Your task to perform on an android device: Open Youtube and go to "Your channel" Image 0: 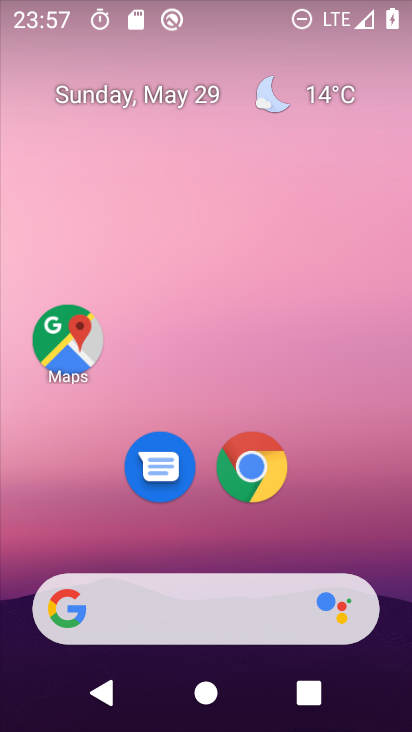
Step 0: drag from (196, 544) to (152, 119)
Your task to perform on an android device: Open Youtube and go to "Your channel" Image 1: 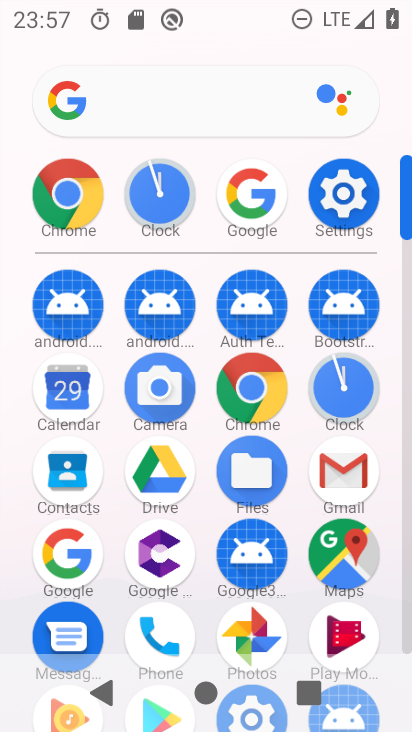
Step 1: drag from (222, 527) to (218, 232)
Your task to perform on an android device: Open Youtube and go to "Your channel" Image 2: 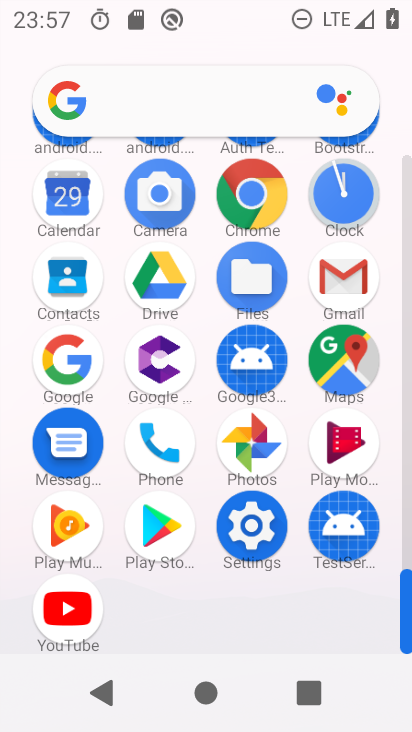
Step 2: click (75, 604)
Your task to perform on an android device: Open Youtube and go to "Your channel" Image 3: 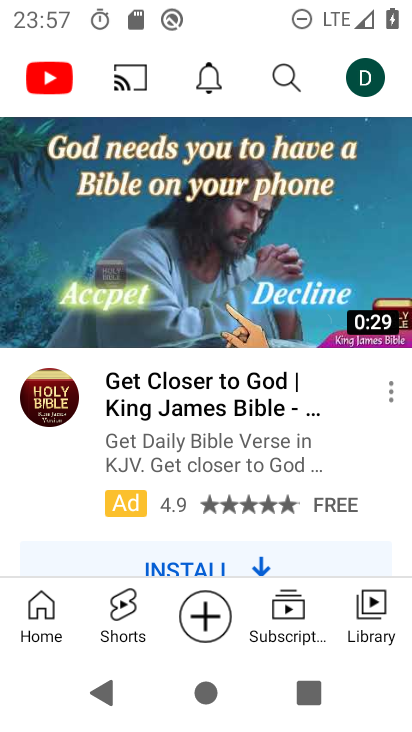
Step 3: click (360, 79)
Your task to perform on an android device: Open Youtube and go to "Your channel" Image 4: 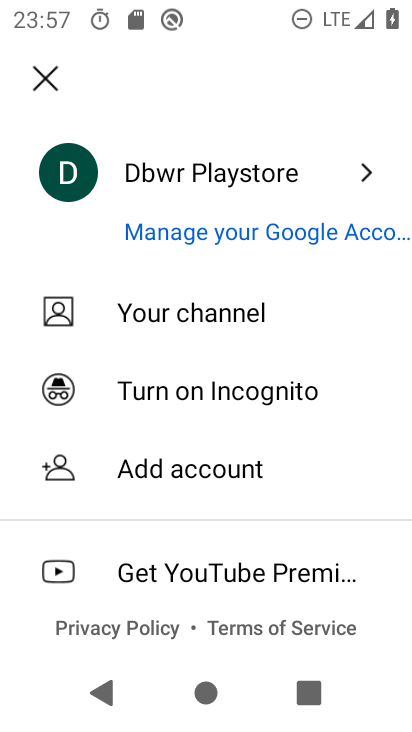
Step 4: click (125, 310)
Your task to perform on an android device: Open Youtube and go to "Your channel" Image 5: 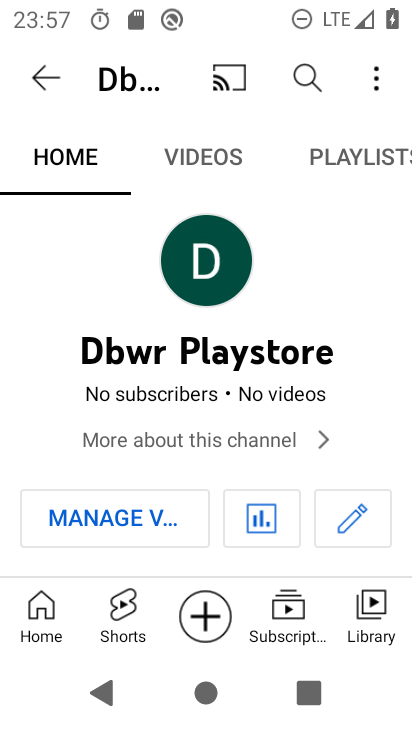
Step 5: drag from (130, 418) to (178, 192)
Your task to perform on an android device: Open Youtube and go to "Your channel" Image 6: 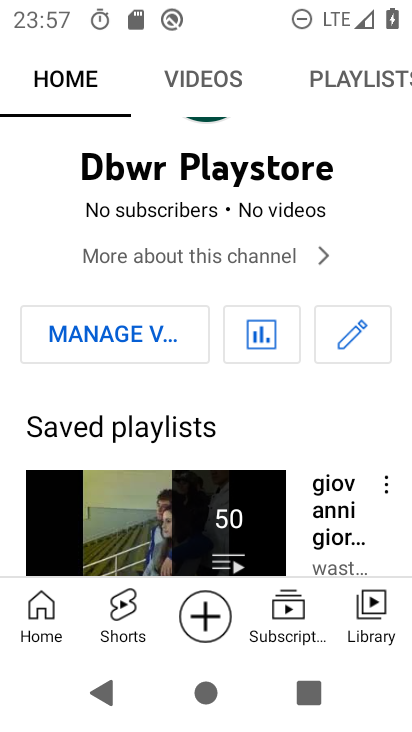
Step 6: drag from (182, 493) to (217, 283)
Your task to perform on an android device: Open Youtube and go to "Your channel" Image 7: 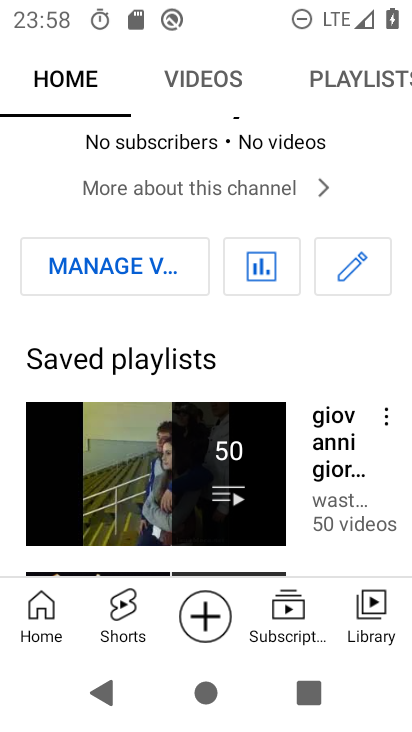
Step 7: drag from (247, 469) to (254, 267)
Your task to perform on an android device: Open Youtube and go to "Your channel" Image 8: 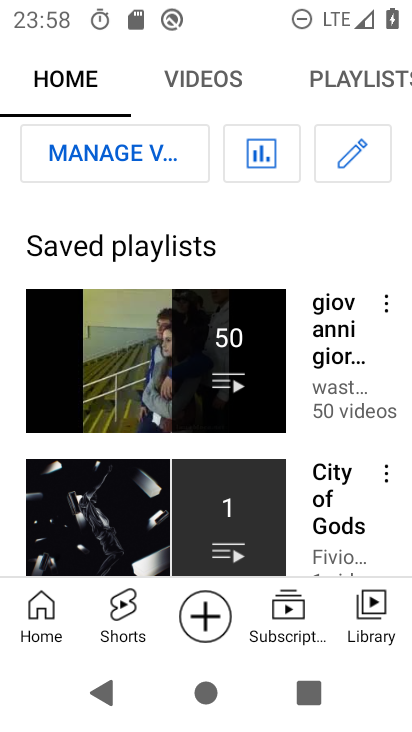
Step 8: drag from (274, 572) to (276, 265)
Your task to perform on an android device: Open Youtube and go to "Your channel" Image 9: 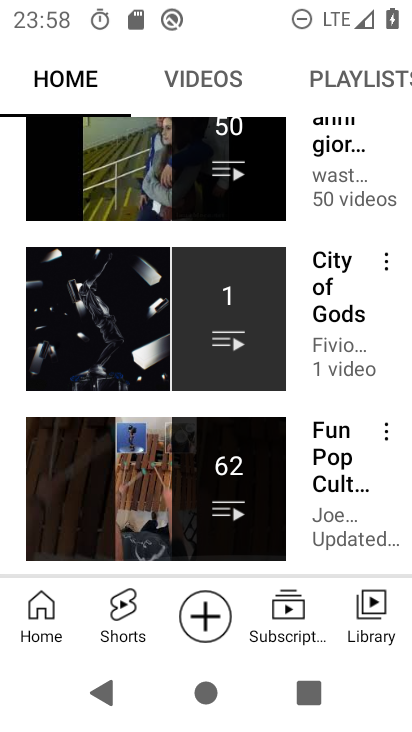
Step 9: drag from (275, 179) to (269, 527)
Your task to perform on an android device: Open Youtube and go to "Your channel" Image 10: 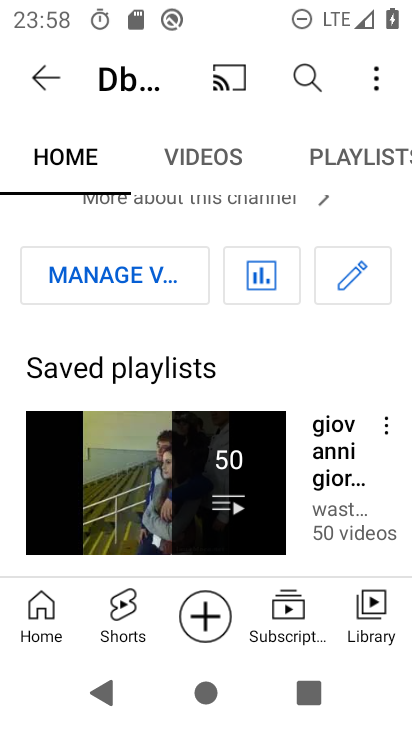
Step 10: drag from (252, 237) to (252, 499)
Your task to perform on an android device: Open Youtube and go to "Your channel" Image 11: 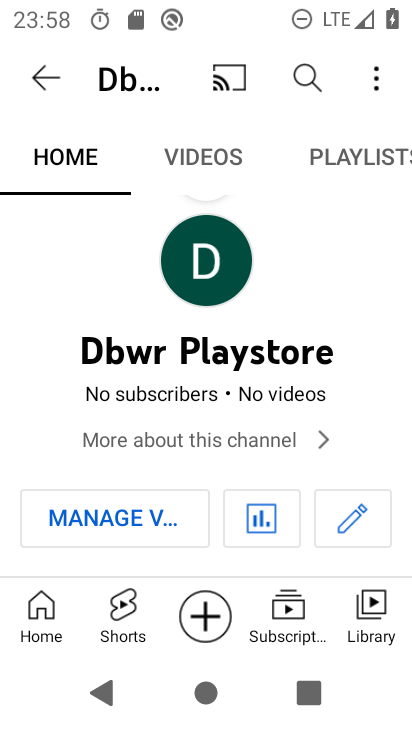
Step 11: drag from (251, 211) to (255, 393)
Your task to perform on an android device: Open Youtube and go to "Your channel" Image 12: 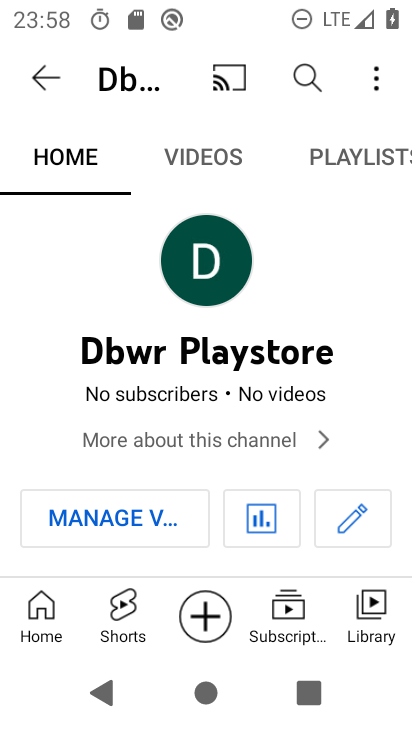
Step 12: click (35, 73)
Your task to perform on an android device: Open Youtube and go to "Your channel" Image 13: 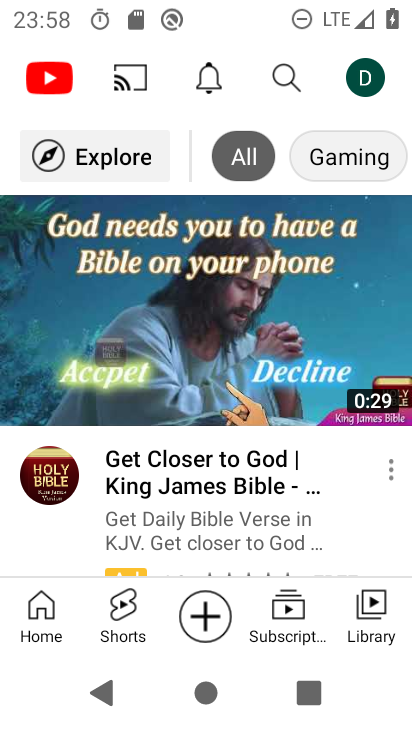
Step 13: click (358, 67)
Your task to perform on an android device: Open Youtube and go to "Your channel" Image 14: 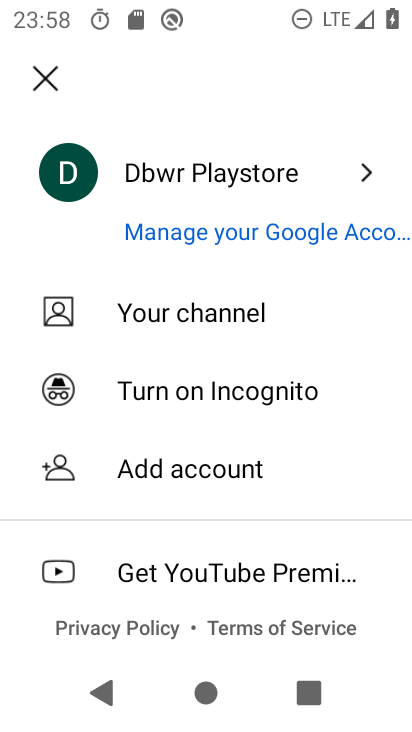
Step 14: click (191, 295)
Your task to perform on an android device: Open Youtube and go to "Your channel" Image 15: 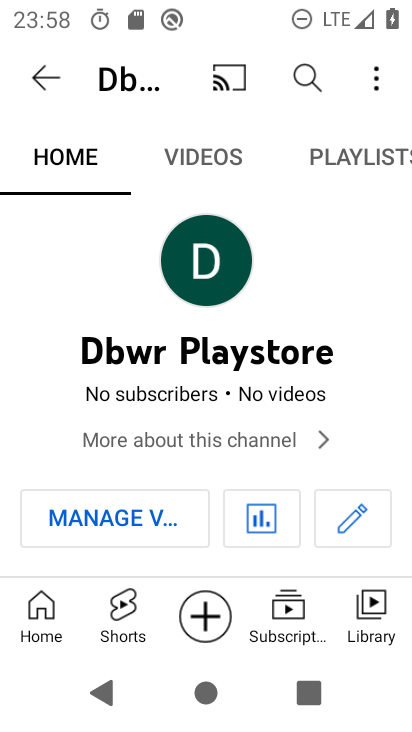
Step 15: task complete